Your task to perform on an android device: Open Yahoo.com Image 0: 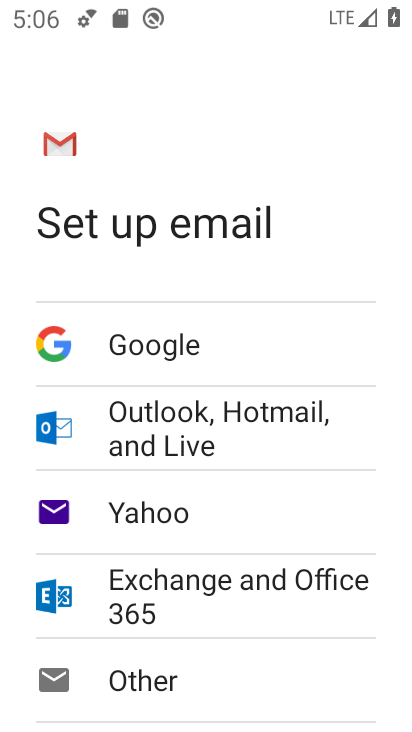
Step 0: press home button
Your task to perform on an android device: Open Yahoo.com Image 1: 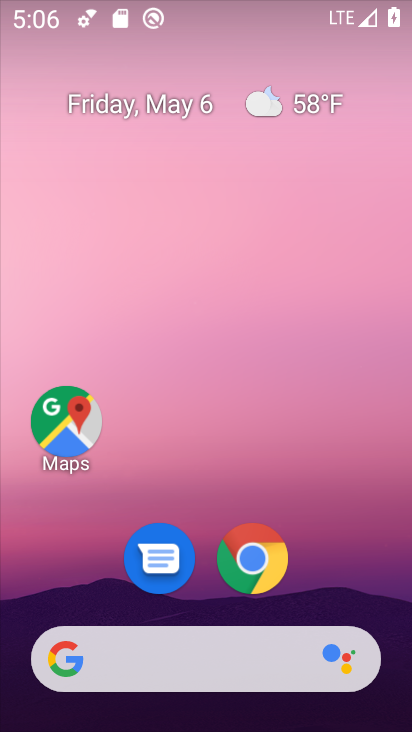
Step 1: drag from (247, 652) to (321, 77)
Your task to perform on an android device: Open Yahoo.com Image 2: 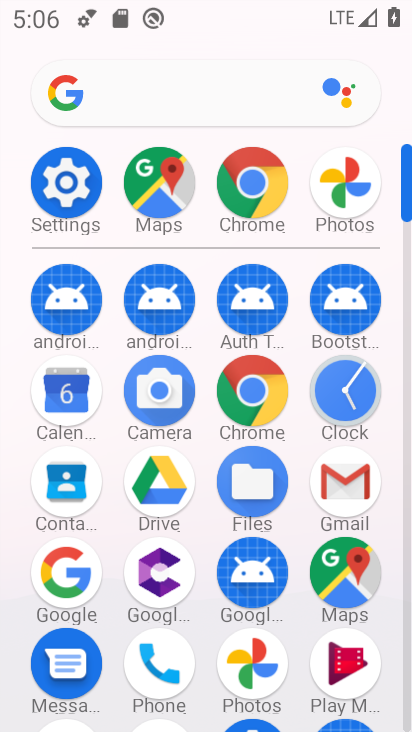
Step 2: click (237, 403)
Your task to perform on an android device: Open Yahoo.com Image 3: 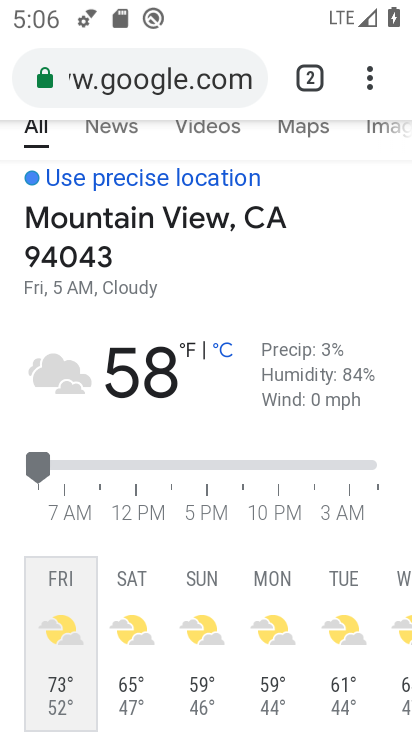
Step 3: click (183, 92)
Your task to perform on an android device: Open Yahoo.com Image 4: 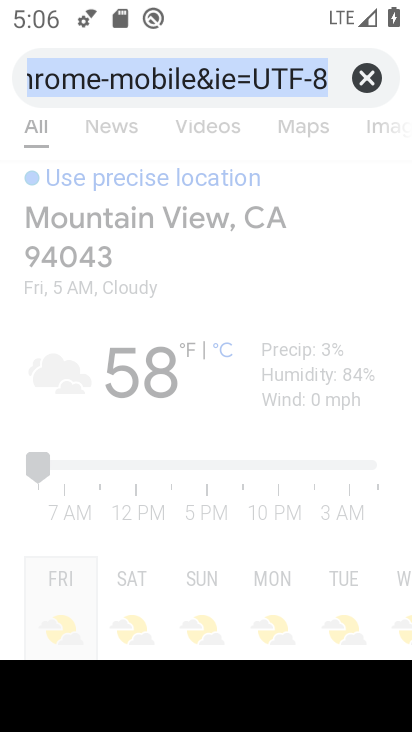
Step 4: click (354, 83)
Your task to perform on an android device: Open Yahoo.com Image 5: 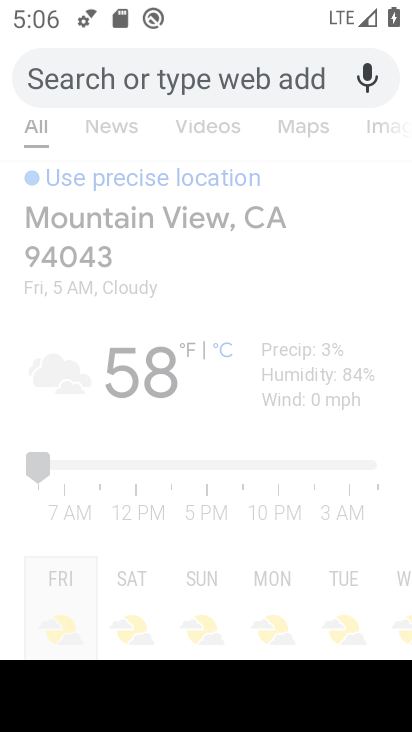
Step 5: type "yahoo.com"
Your task to perform on an android device: Open Yahoo.com Image 6: 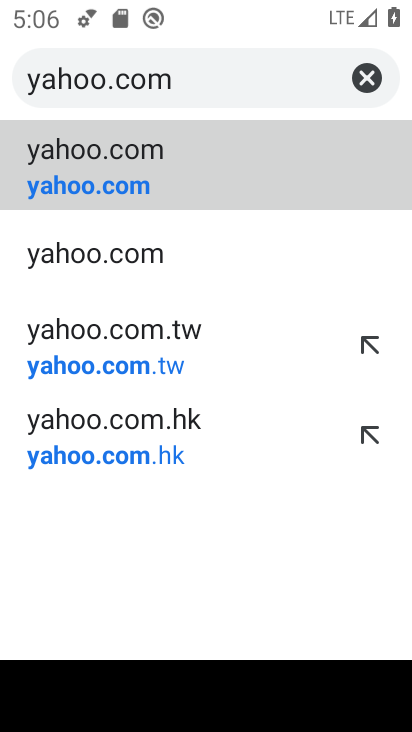
Step 6: click (205, 162)
Your task to perform on an android device: Open Yahoo.com Image 7: 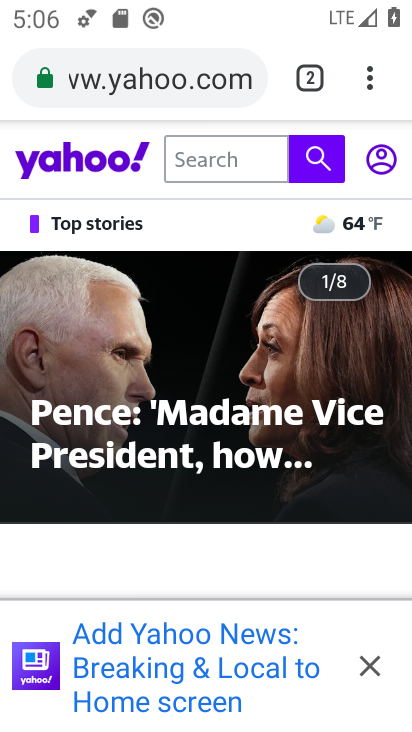
Step 7: task complete